Your task to perform on an android device: uninstall "VLC for Android" Image 0: 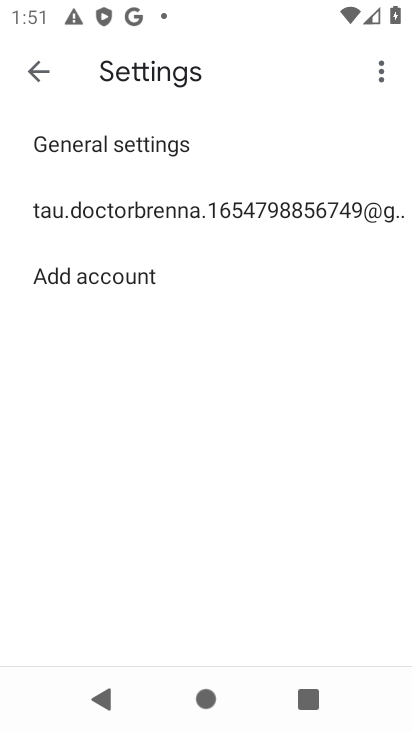
Step 0: press home button
Your task to perform on an android device: uninstall "VLC for Android" Image 1: 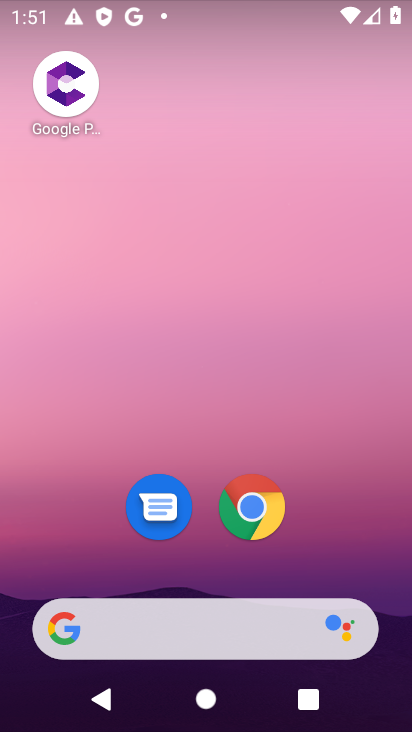
Step 1: drag from (285, 585) to (234, 2)
Your task to perform on an android device: uninstall "VLC for Android" Image 2: 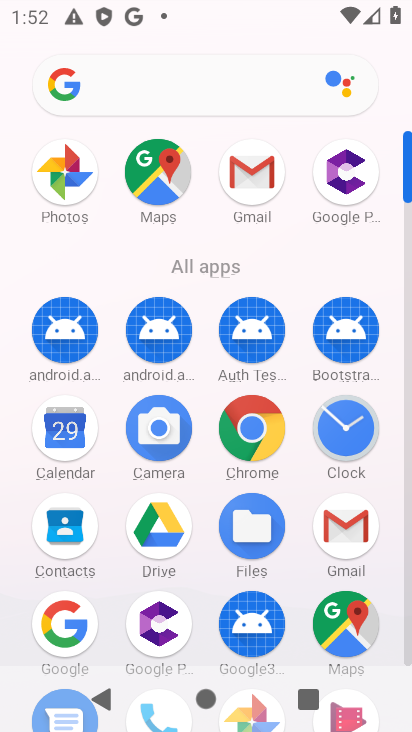
Step 2: click (406, 659)
Your task to perform on an android device: uninstall "VLC for Android" Image 3: 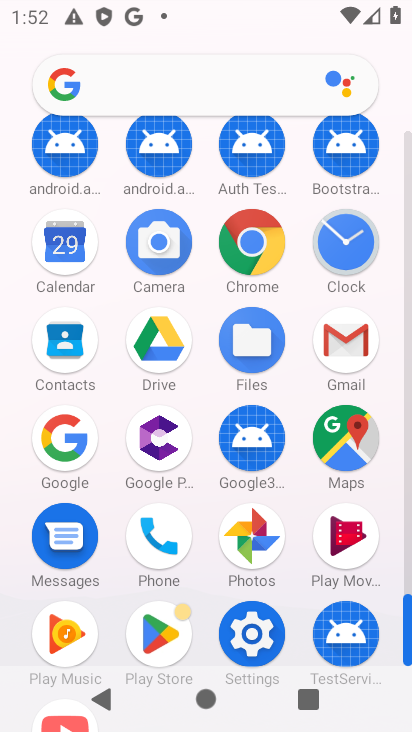
Step 3: drag from (171, 660) to (143, 279)
Your task to perform on an android device: uninstall "VLC for Android" Image 4: 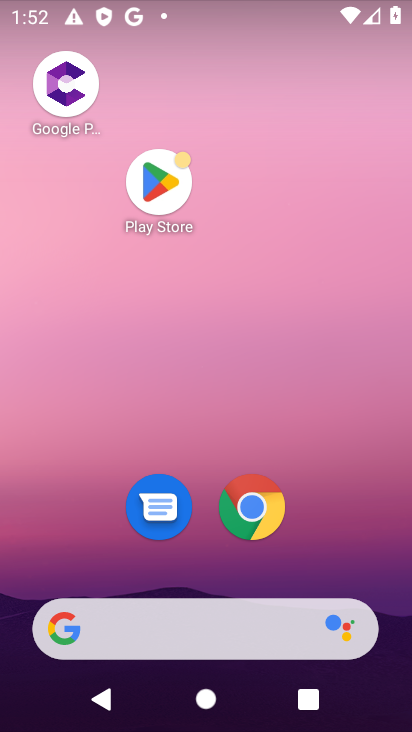
Step 4: click (135, 309)
Your task to perform on an android device: uninstall "VLC for Android" Image 5: 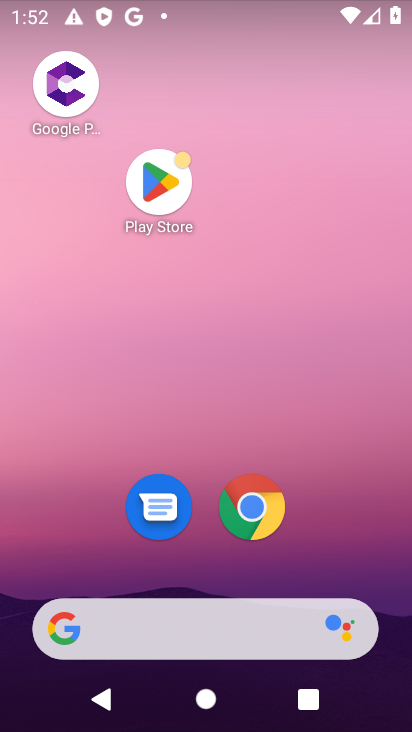
Step 5: click (185, 167)
Your task to perform on an android device: uninstall "VLC for Android" Image 6: 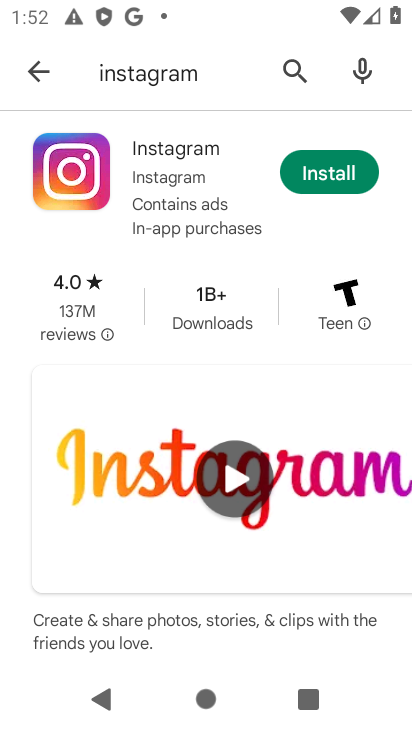
Step 6: click (301, 169)
Your task to perform on an android device: uninstall "VLC for Android" Image 7: 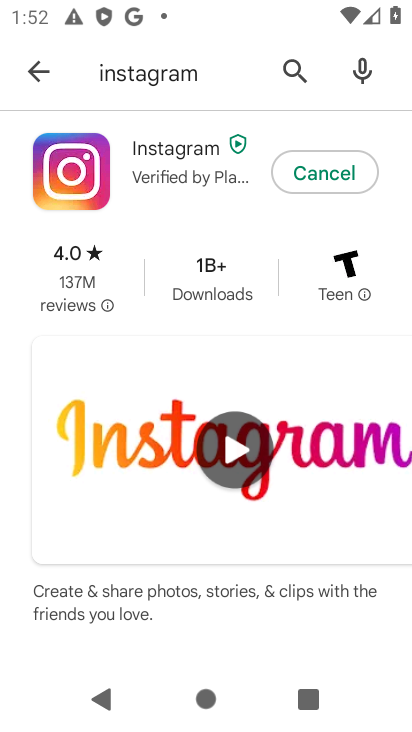
Step 7: click (295, 85)
Your task to perform on an android device: uninstall "VLC for Android" Image 8: 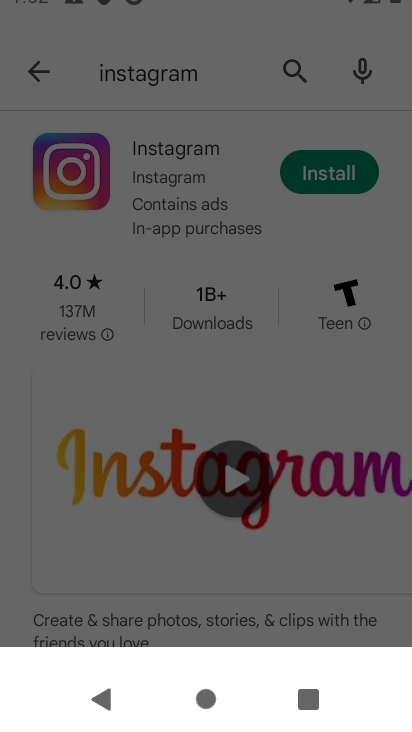
Step 8: click (295, 85)
Your task to perform on an android device: uninstall "VLC for Android" Image 9: 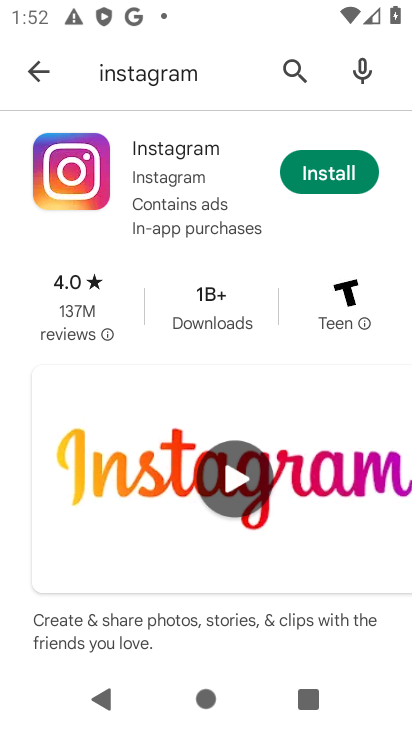
Step 9: click (295, 85)
Your task to perform on an android device: uninstall "VLC for Android" Image 10: 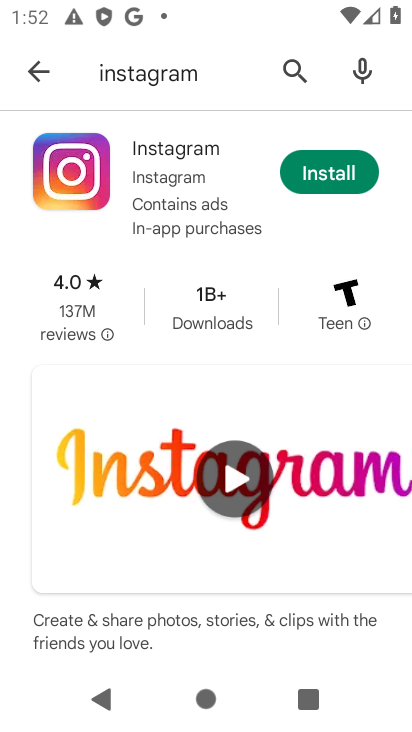
Step 10: click (295, 85)
Your task to perform on an android device: uninstall "VLC for Android" Image 11: 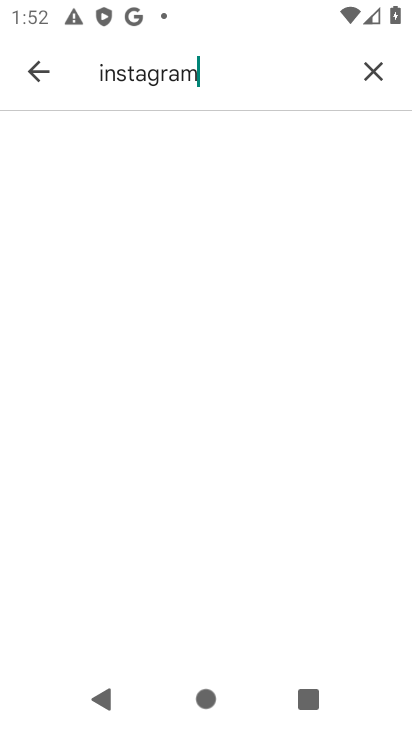
Step 11: click (295, 85)
Your task to perform on an android device: uninstall "VLC for Android" Image 12: 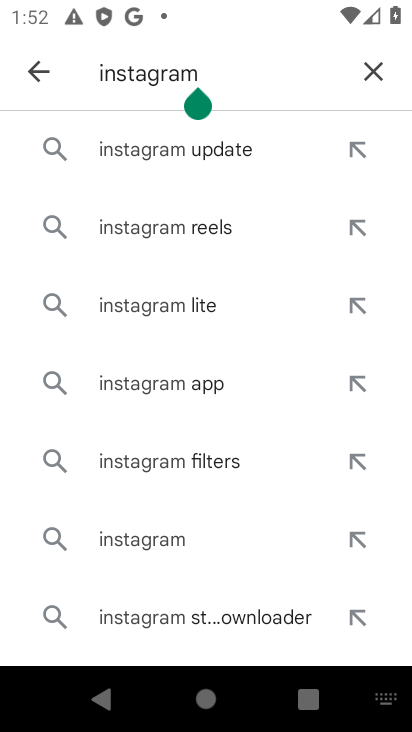
Step 12: click (352, 78)
Your task to perform on an android device: uninstall "VLC for Android" Image 13: 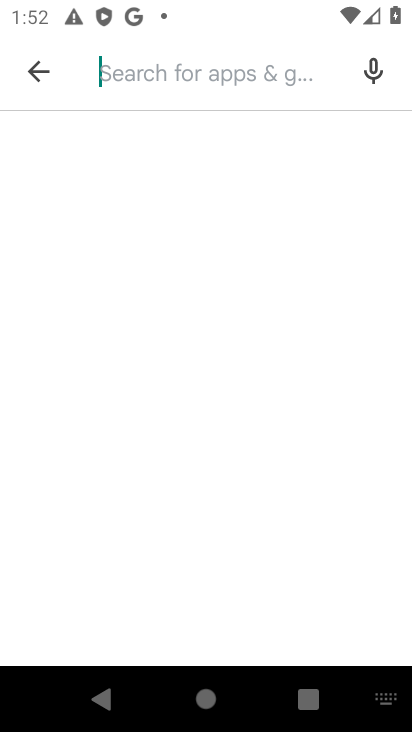
Step 13: type "vlc"
Your task to perform on an android device: uninstall "VLC for Android" Image 14: 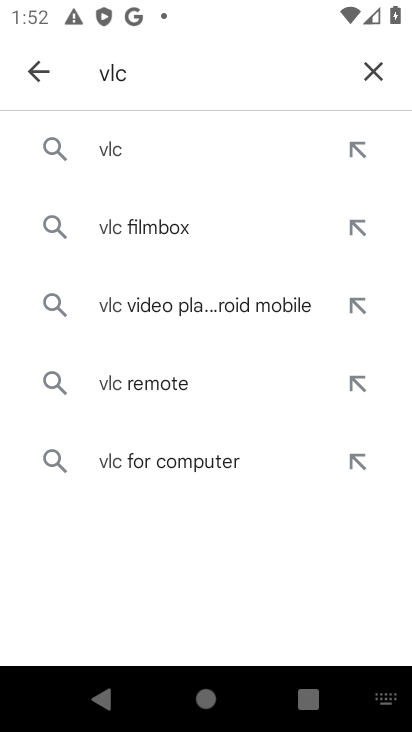
Step 14: click (272, 158)
Your task to perform on an android device: uninstall "VLC for Android" Image 15: 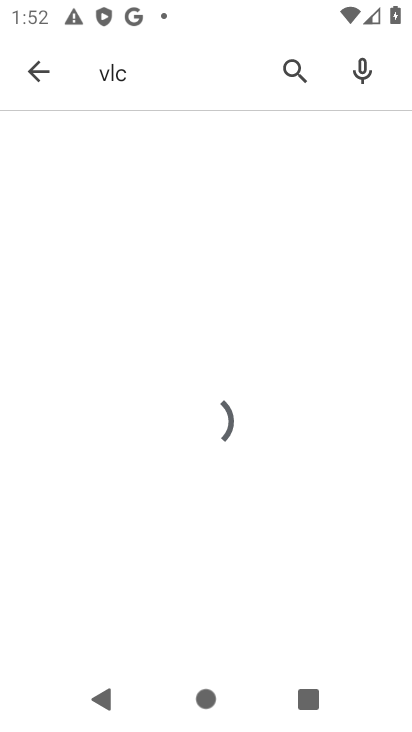
Step 15: task complete